Your task to perform on an android device: What's on my calendar tomorrow? Image 0: 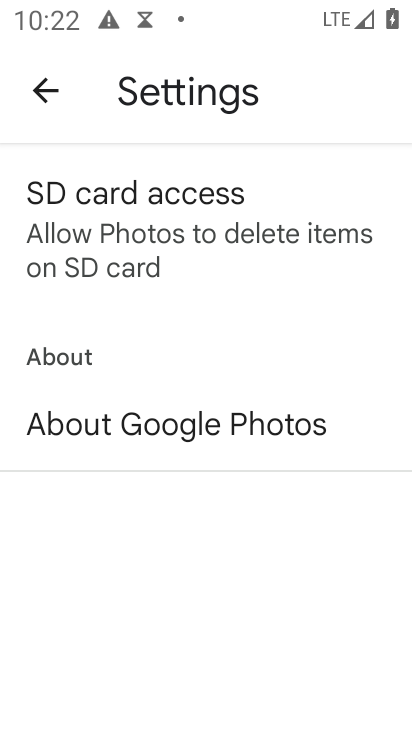
Step 0: press home button
Your task to perform on an android device: What's on my calendar tomorrow? Image 1: 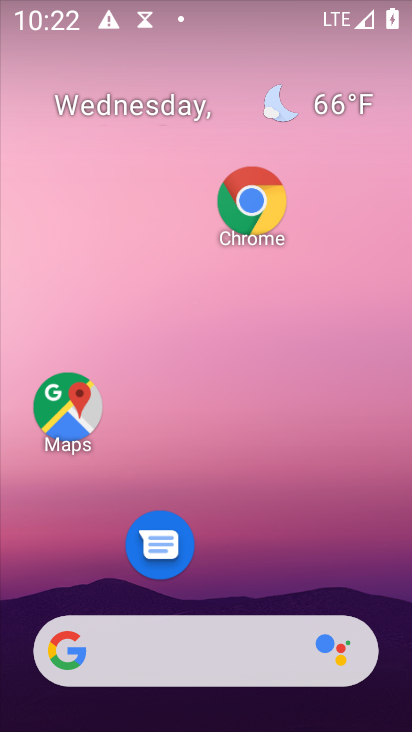
Step 1: drag from (289, 557) to (206, 19)
Your task to perform on an android device: What's on my calendar tomorrow? Image 2: 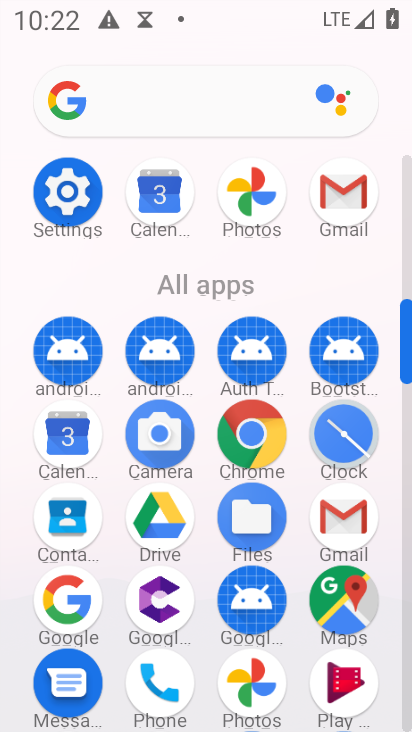
Step 2: click (51, 439)
Your task to perform on an android device: What's on my calendar tomorrow? Image 3: 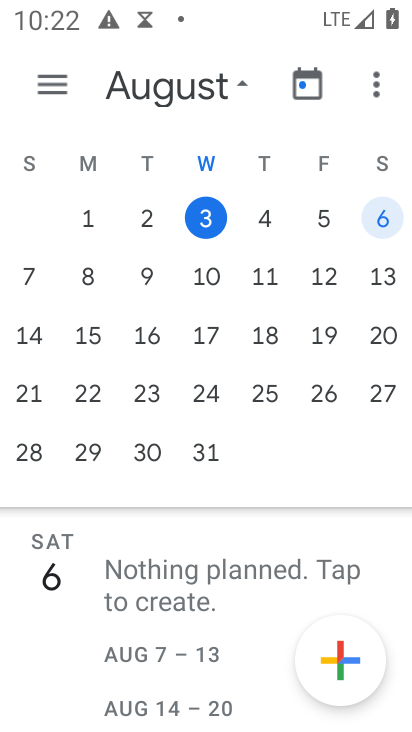
Step 3: click (271, 210)
Your task to perform on an android device: What's on my calendar tomorrow? Image 4: 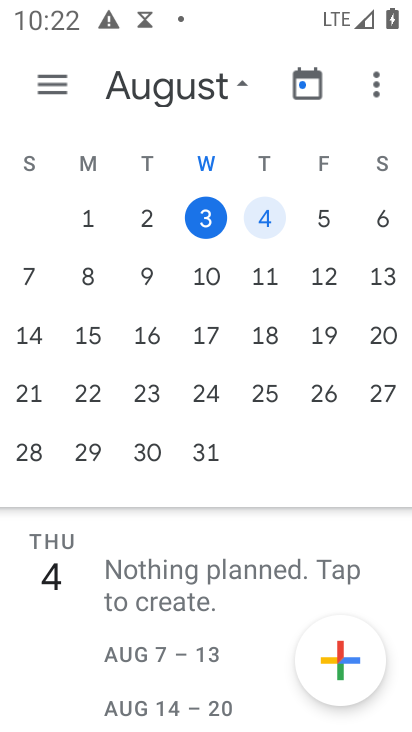
Step 4: task complete